Your task to perform on an android device: Do I have any events today? Image 0: 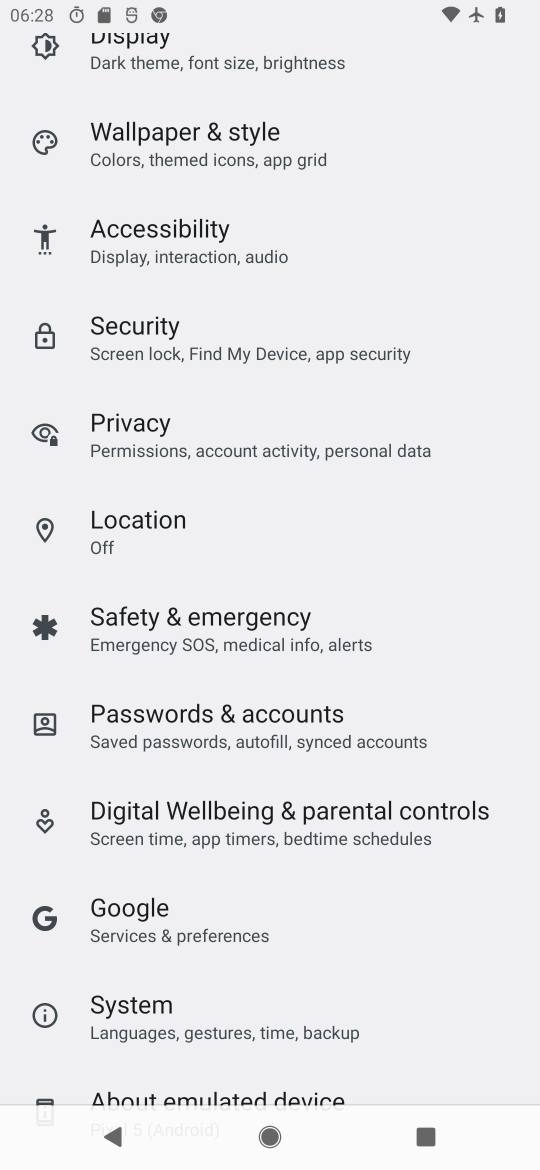
Step 0: press home button
Your task to perform on an android device: Do I have any events today? Image 1: 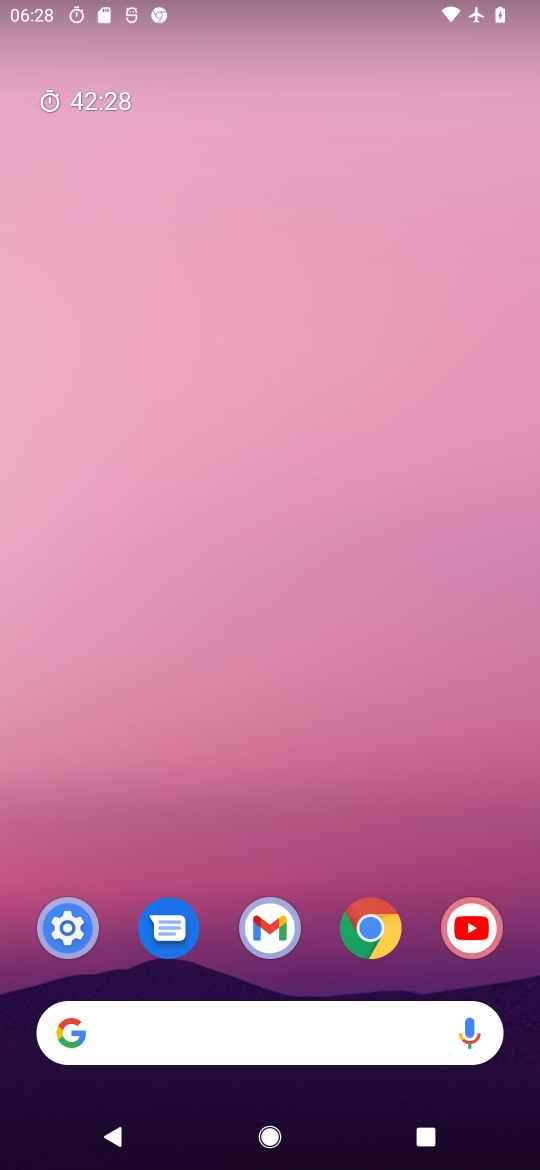
Step 1: drag from (224, 959) to (197, 8)
Your task to perform on an android device: Do I have any events today? Image 2: 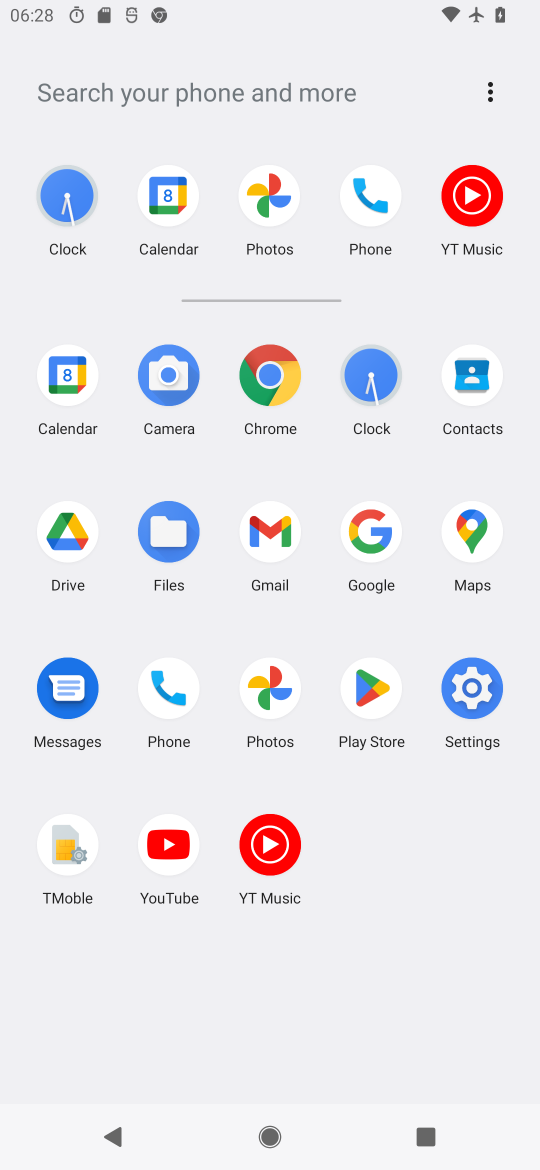
Step 2: click (61, 387)
Your task to perform on an android device: Do I have any events today? Image 3: 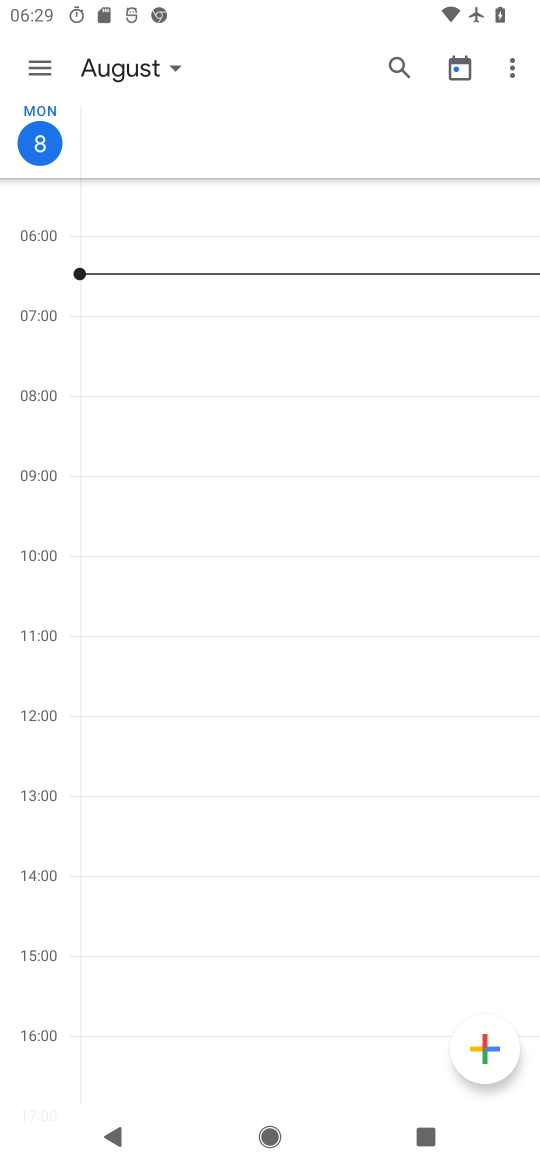
Step 3: click (47, 64)
Your task to perform on an android device: Do I have any events today? Image 4: 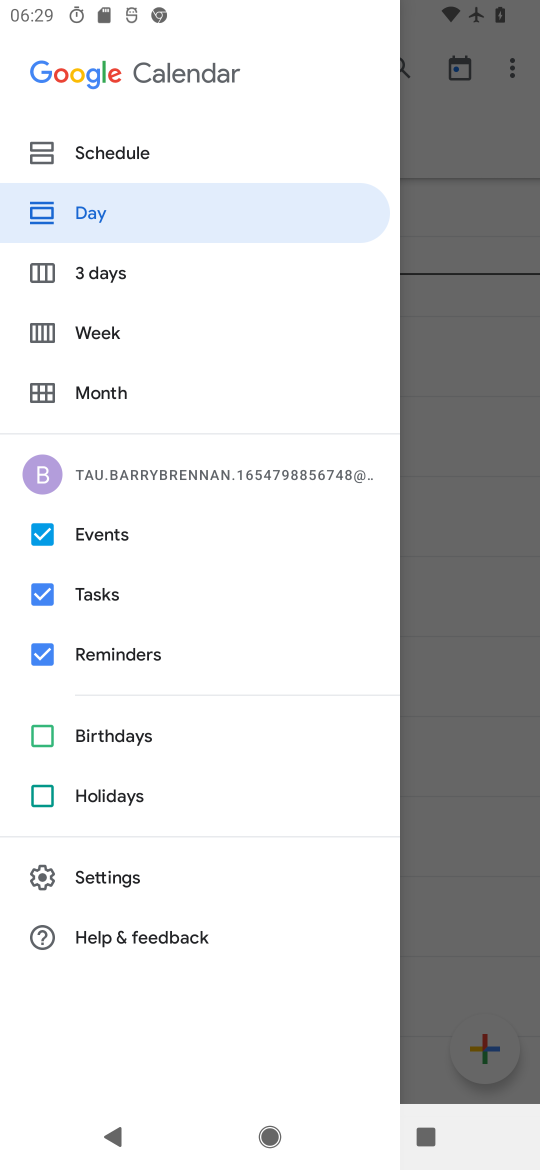
Step 4: click (149, 664)
Your task to perform on an android device: Do I have any events today? Image 5: 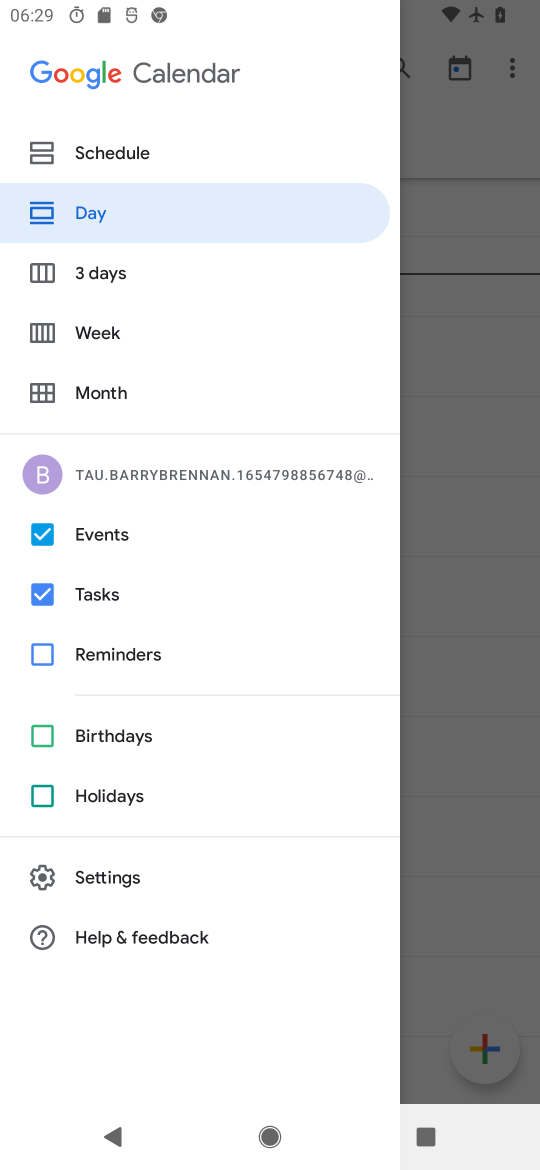
Step 5: click (105, 581)
Your task to perform on an android device: Do I have any events today? Image 6: 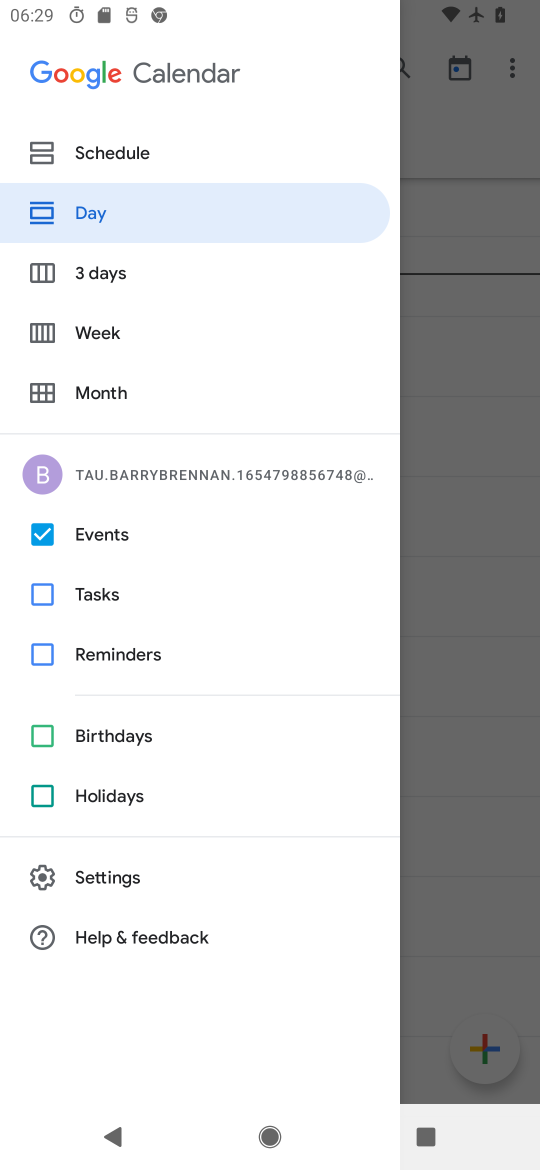
Step 6: click (175, 202)
Your task to perform on an android device: Do I have any events today? Image 7: 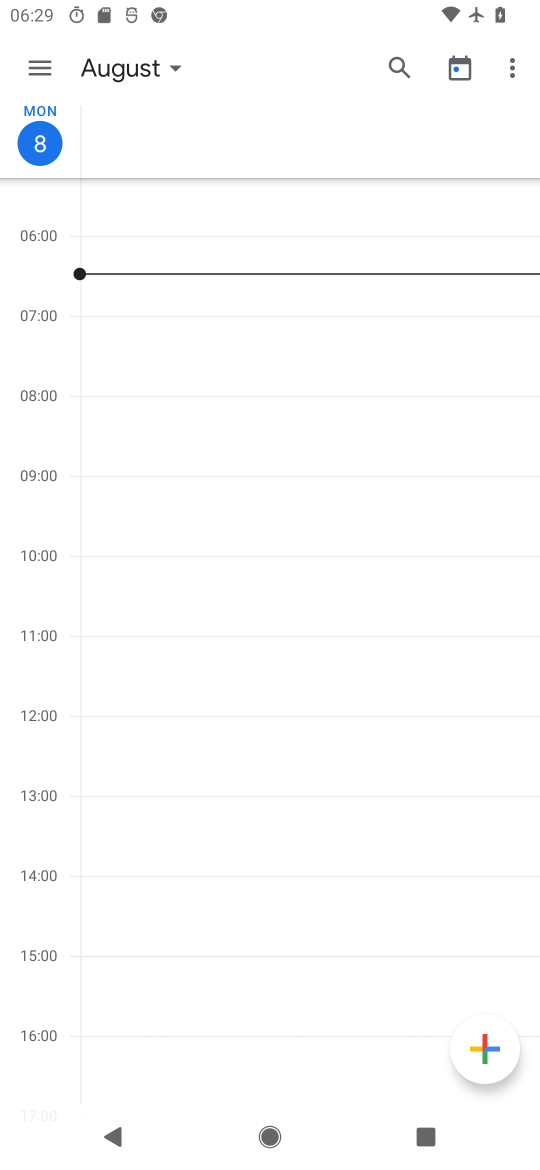
Step 7: task complete